Your task to perform on an android device: turn off picture-in-picture Image 0: 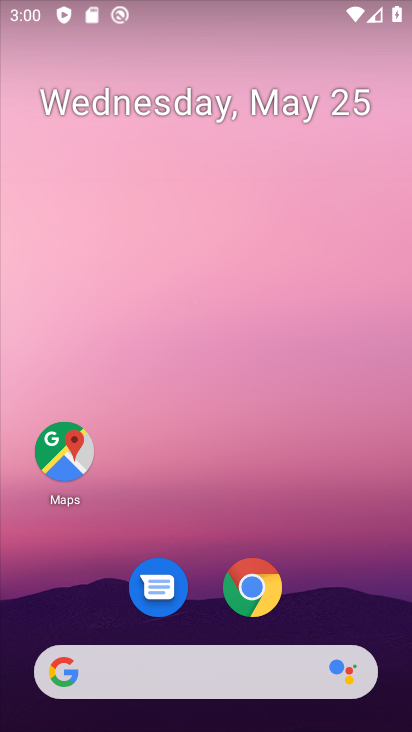
Step 0: drag from (65, 629) to (191, 188)
Your task to perform on an android device: turn off picture-in-picture Image 1: 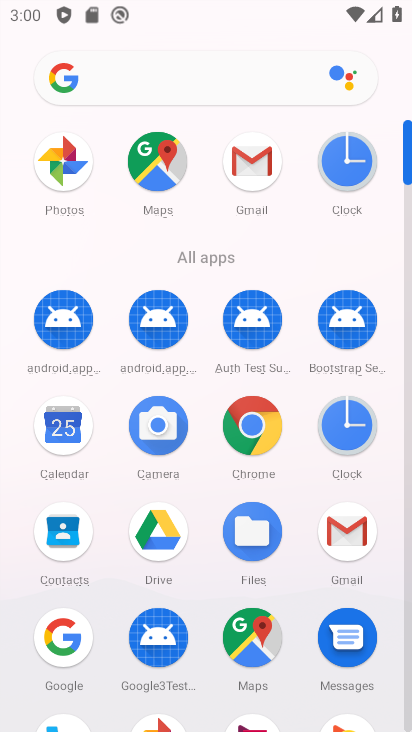
Step 1: drag from (192, 428) to (231, 263)
Your task to perform on an android device: turn off picture-in-picture Image 2: 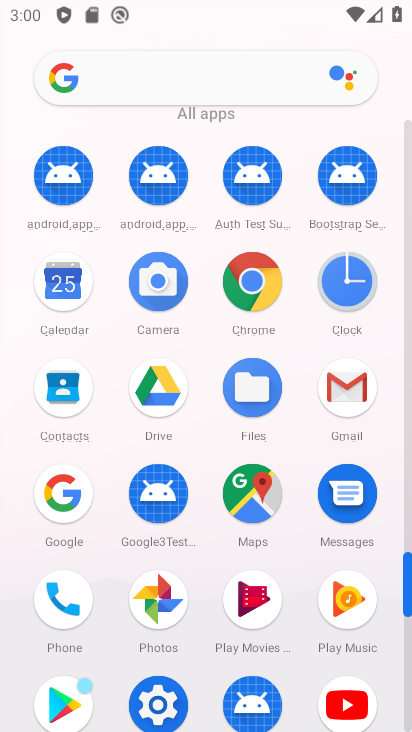
Step 2: drag from (172, 646) to (210, 443)
Your task to perform on an android device: turn off picture-in-picture Image 3: 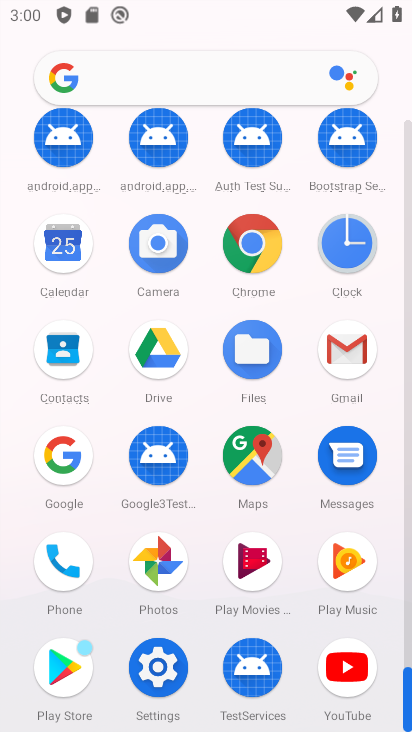
Step 3: click (168, 668)
Your task to perform on an android device: turn off picture-in-picture Image 4: 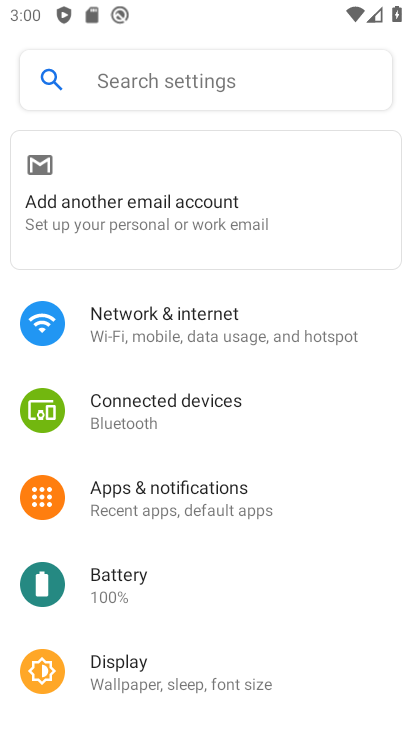
Step 4: drag from (209, 582) to (304, 255)
Your task to perform on an android device: turn off picture-in-picture Image 5: 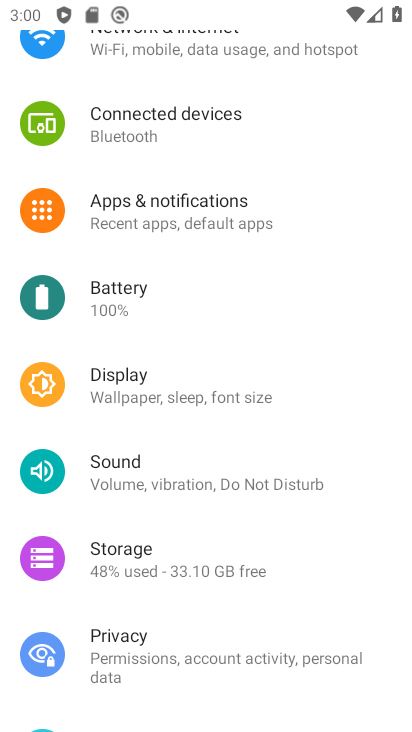
Step 5: click (262, 232)
Your task to perform on an android device: turn off picture-in-picture Image 6: 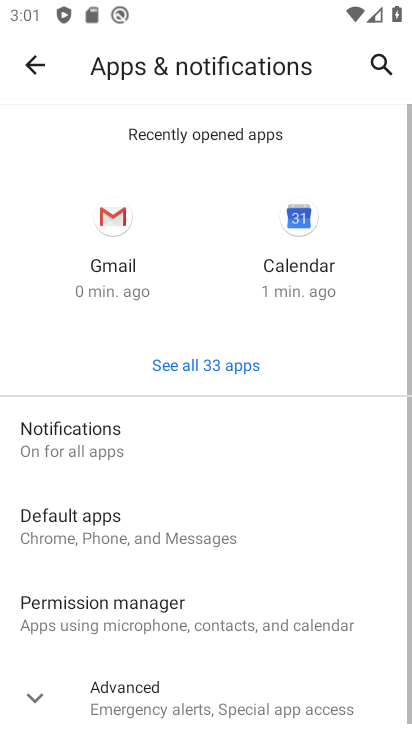
Step 6: drag from (210, 479) to (243, 331)
Your task to perform on an android device: turn off picture-in-picture Image 7: 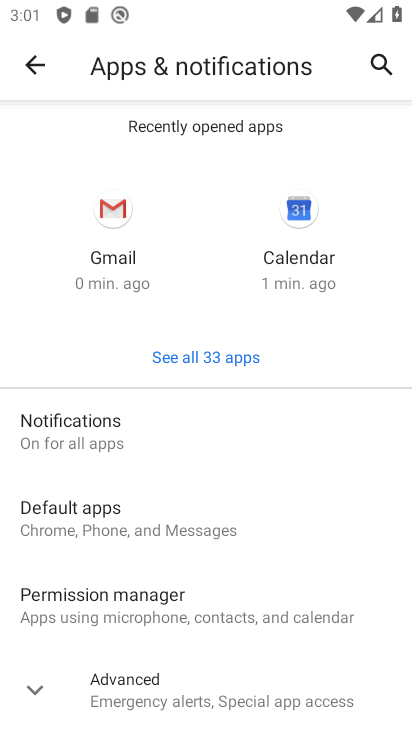
Step 7: click (197, 685)
Your task to perform on an android device: turn off picture-in-picture Image 8: 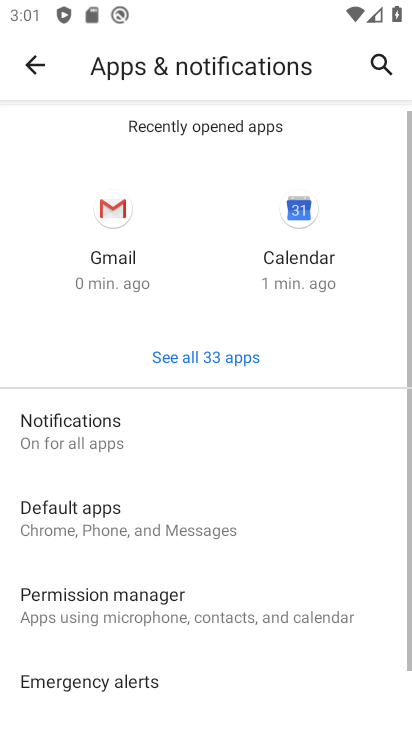
Step 8: drag from (197, 681) to (308, 293)
Your task to perform on an android device: turn off picture-in-picture Image 9: 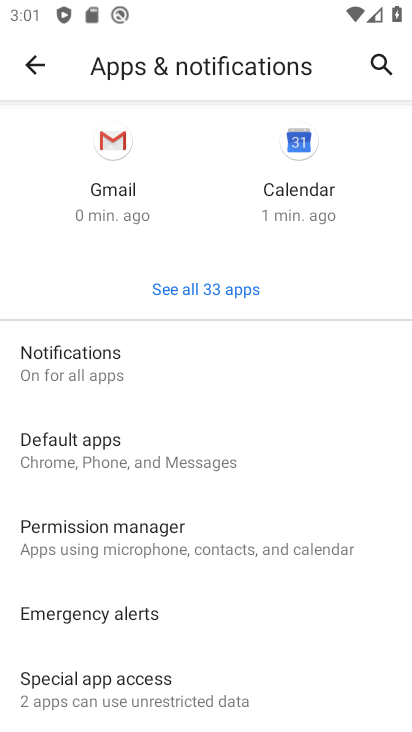
Step 9: click (94, 698)
Your task to perform on an android device: turn off picture-in-picture Image 10: 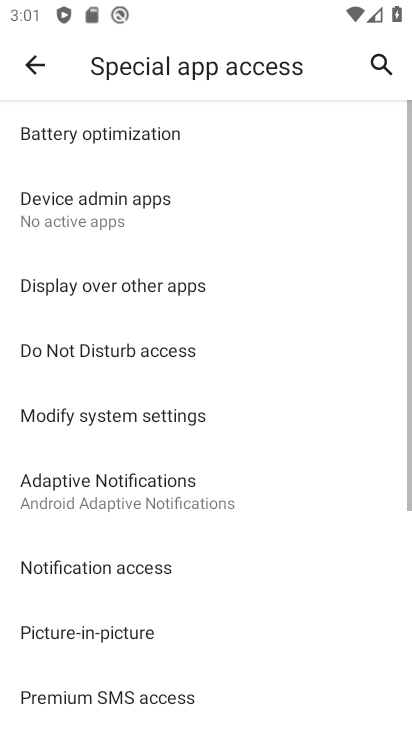
Step 10: drag from (157, 707) to (287, 317)
Your task to perform on an android device: turn off picture-in-picture Image 11: 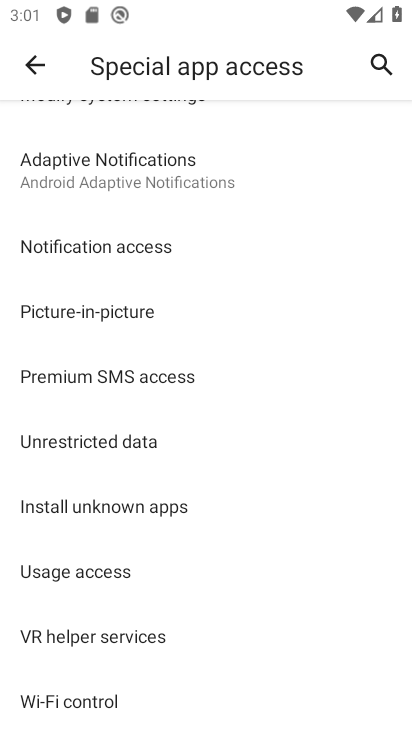
Step 11: drag from (227, 261) to (224, 671)
Your task to perform on an android device: turn off picture-in-picture Image 12: 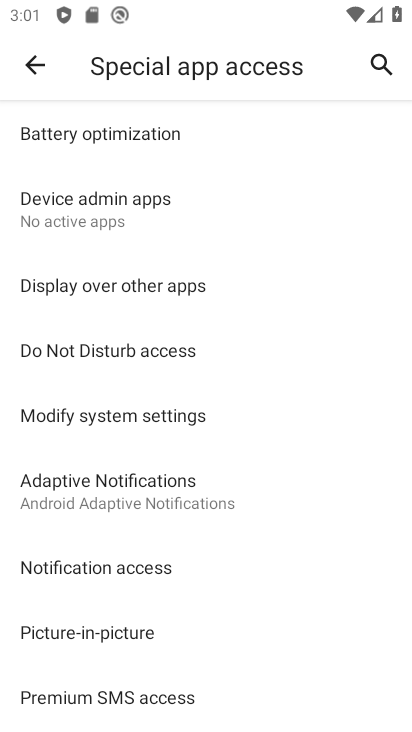
Step 12: click (135, 638)
Your task to perform on an android device: turn off picture-in-picture Image 13: 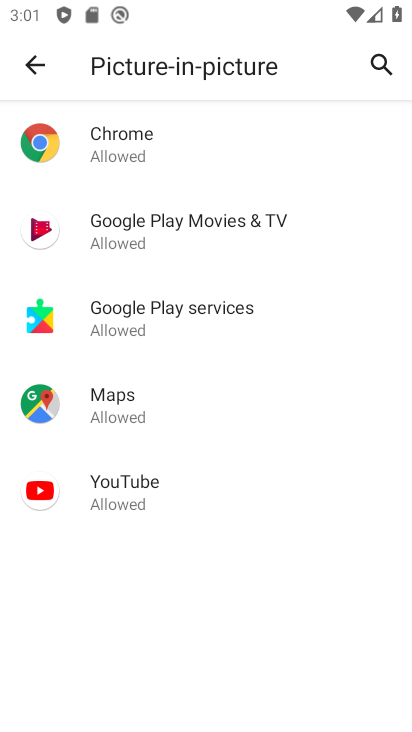
Step 13: click (202, 150)
Your task to perform on an android device: turn off picture-in-picture Image 14: 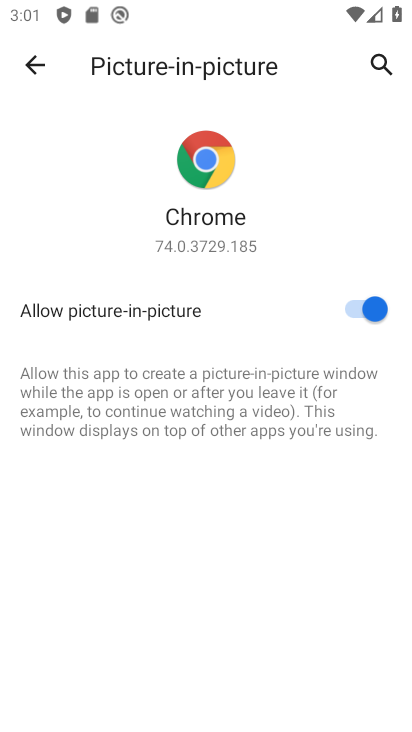
Step 14: click (360, 311)
Your task to perform on an android device: turn off picture-in-picture Image 15: 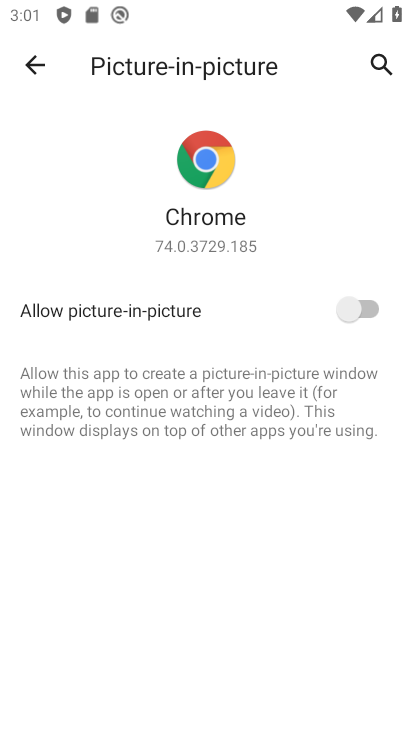
Step 15: click (36, 55)
Your task to perform on an android device: turn off picture-in-picture Image 16: 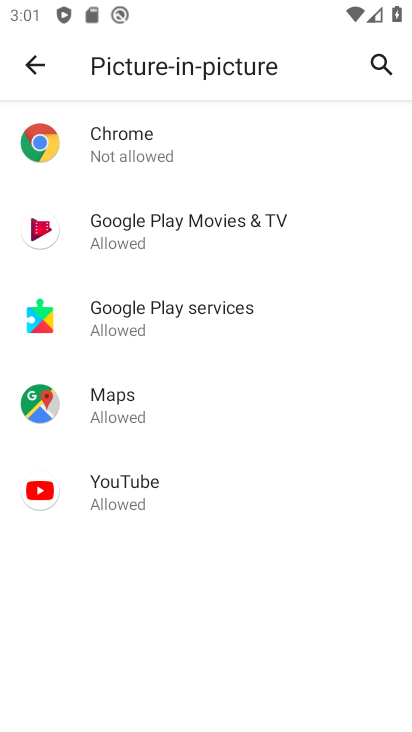
Step 16: click (301, 240)
Your task to perform on an android device: turn off picture-in-picture Image 17: 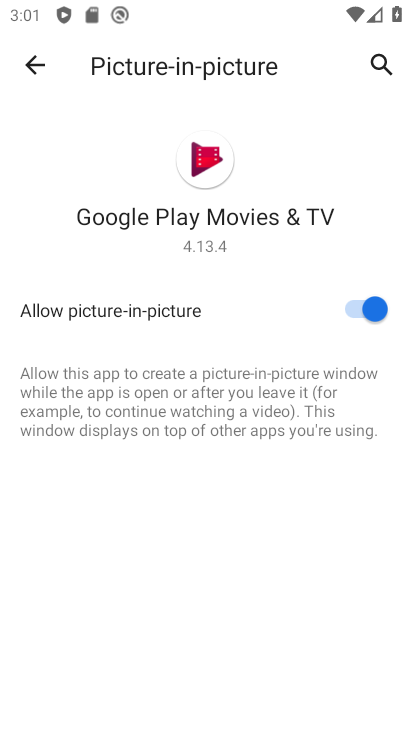
Step 17: click (349, 312)
Your task to perform on an android device: turn off picture-in-picture Image 18: 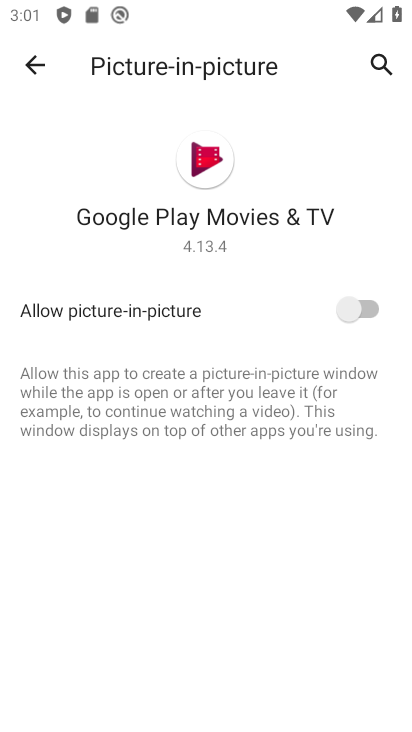
Step 18: click (30, 71)
Your task to perform on an android device: turn off picture-in-picture Image 19: 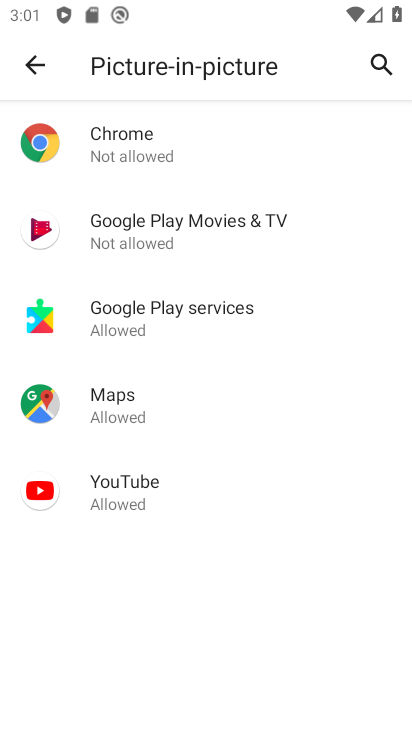
Step 19: click (195, 319)
Your task to perform on an android device: turn off picture-in-picture Image 20: 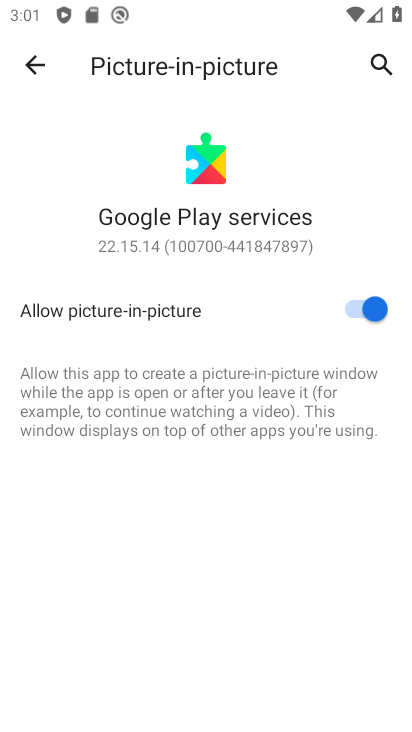
Step 20: click (343, 308)
Your task to perform on an android device: turn off picture-in-picture Image 21: 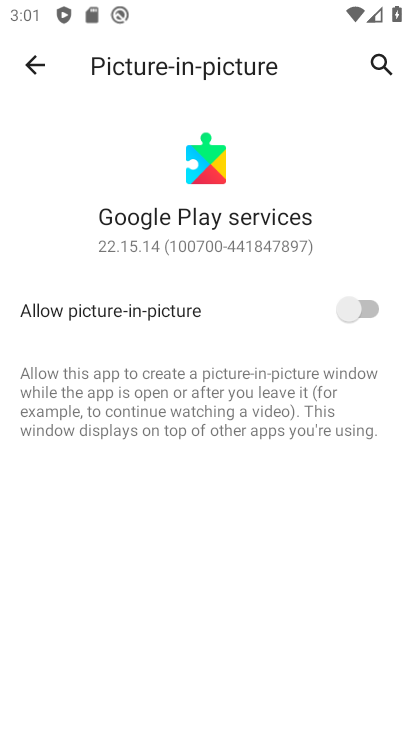
Step 21: click (32, 57)
Your task to perform on an android device: turn off picture-in-picture Image 22: 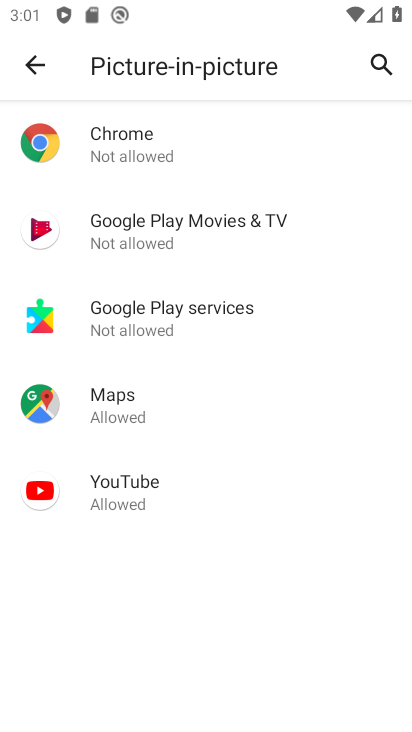
Step 22: click (147, 412)
Your task to perform on an android device: turn off picture-in-picture Image 23: 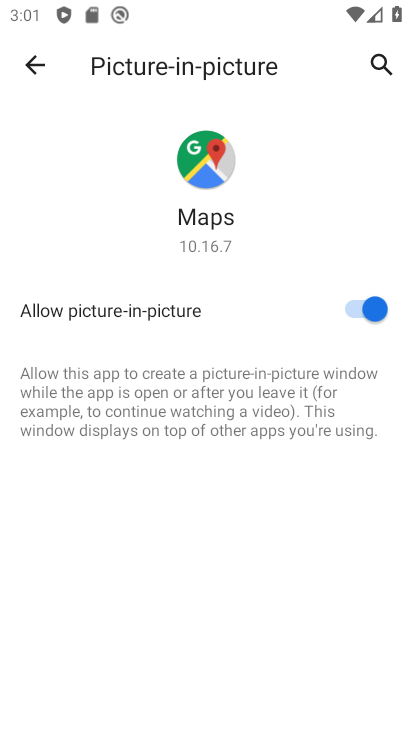
Step 23: click (344, 296)
Your task to perform on an android device: turn off picture-in-picture Image 24: 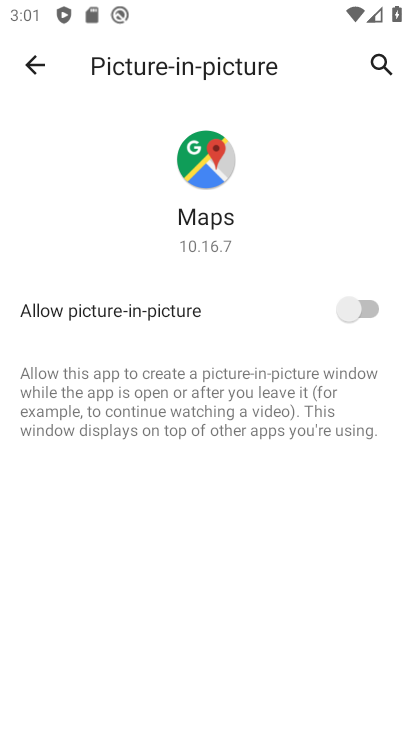
Step 24: click (40, 69)
Your task to perform on an android device: turn off picture-in-picture Image 25: 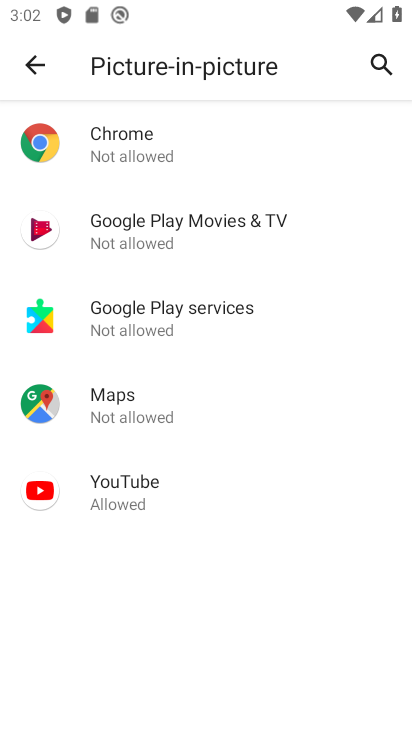
Step 25: click (211, 493)
Your task to perform on an android device: turn off picture-in-picture Image 26: 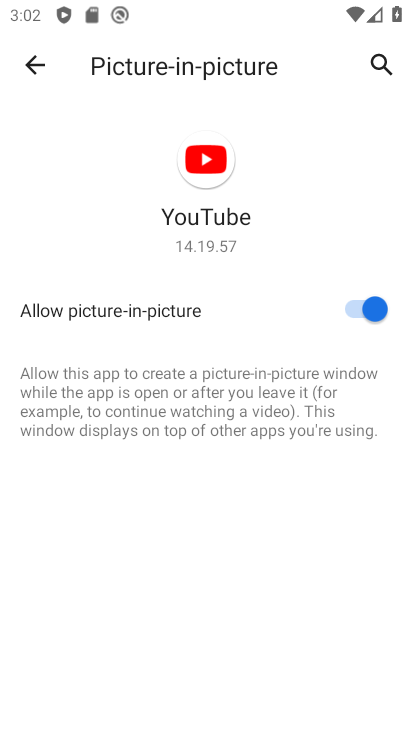
Step 26: click (341, 303)
Your task to perform on an android device: turn off picture-in-picture Image 27: 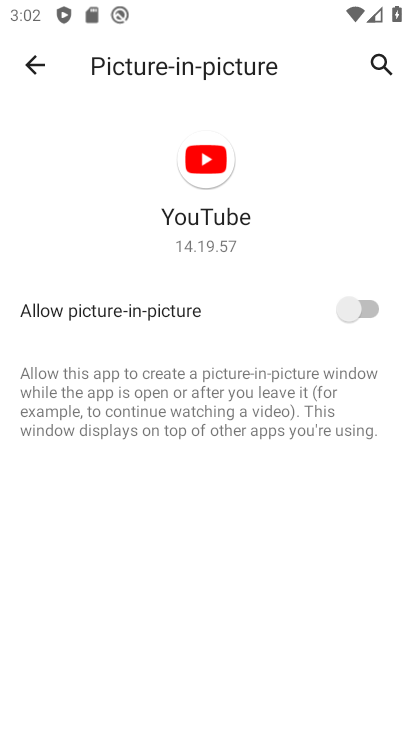
Step 27: task complete